Your task to perform on an android device: Is it going to rain tomorrow? Image 0: 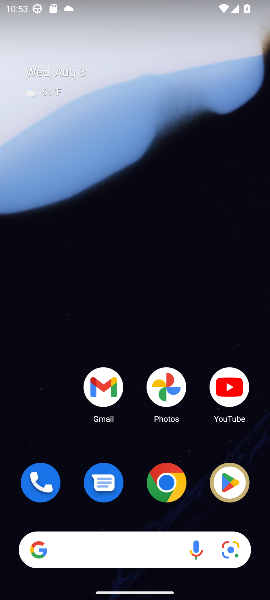
Step 0: drag from (135, 519) to (135, 120)
Your task to perform on an android device: Is it going to rain tomorrow? Image 1: 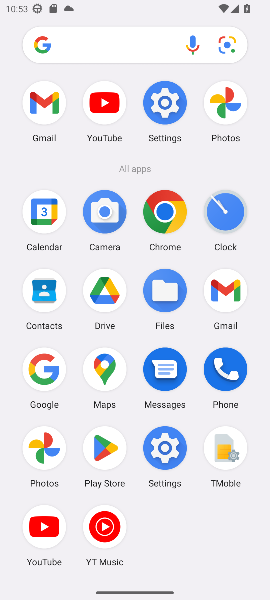
Step 1: click (128, 47)
Your task to perform on an android device: Is it going to rain tomorrow? Image 2: 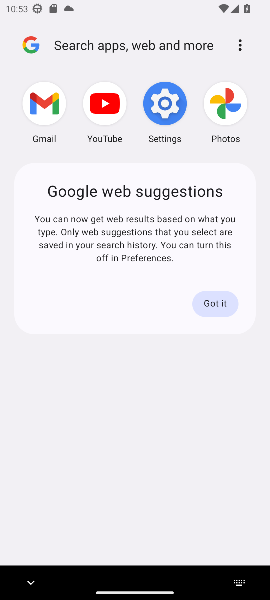
Step 2: type "rain"
Your task to perform on an android device: Is it going to rain tomorrow? Image 3: 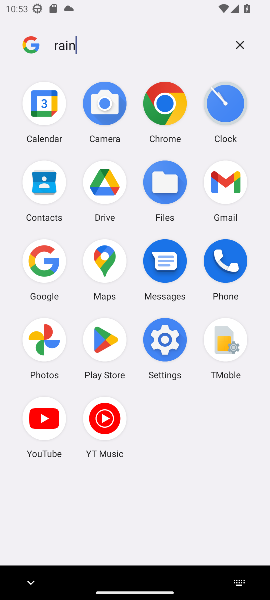
Step 3: task complete